Your task to perform on an android device: stop showing notifications on the lock screen Image 0: 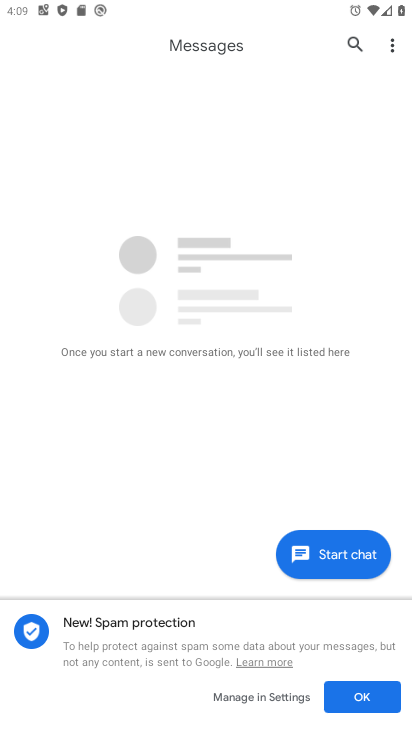
Step 0: press home button
Your task to perform on an android device: stop showing notifications on the lock screen Image 1: 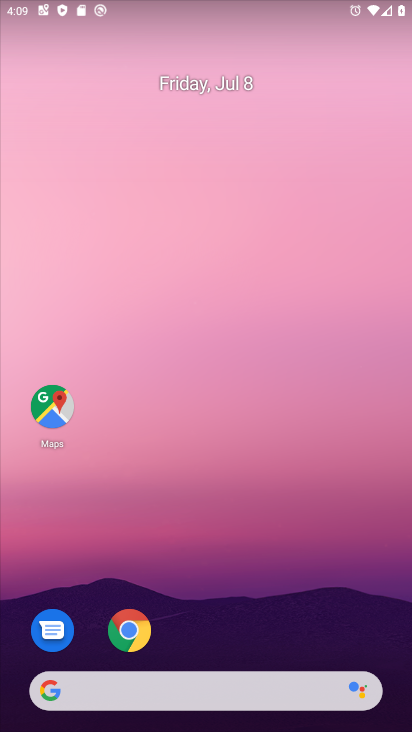
Step 1: drag from (223, 662) to (177, 53)
Your task to perform on an android device: stop showing notifications on the lock screen Image 2: 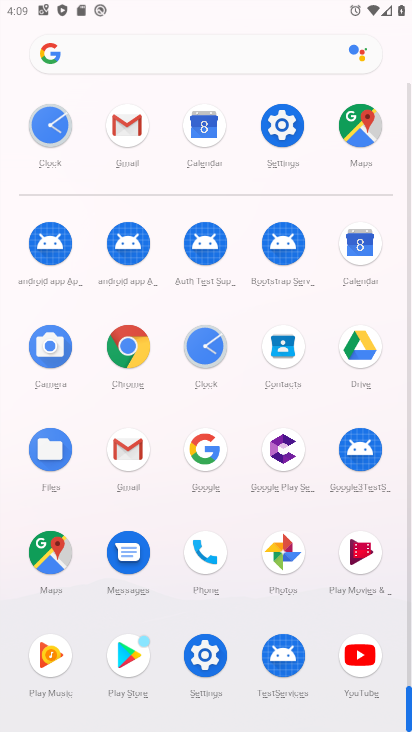
Step 2: click (278, 127)
Your task to perform on an android device: stop showing notifications on the lock screen Image 3: 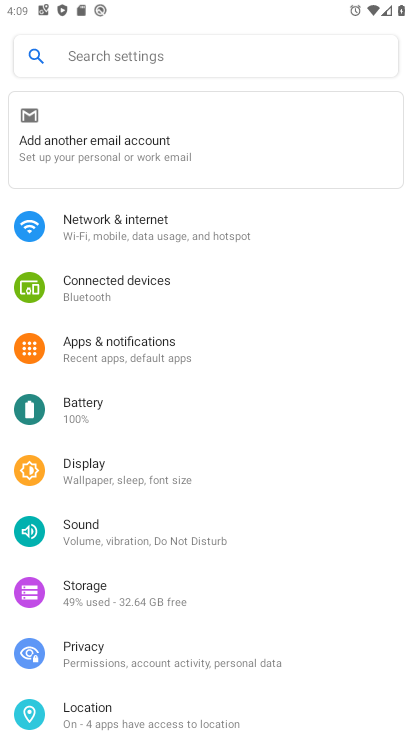
Step 3: click (135, 337)
Your task to perform on an android device: stop showing notifications on the lock screen Image 4: 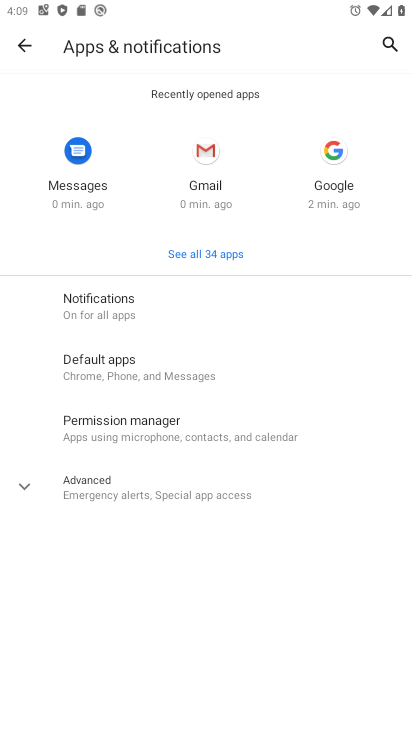
Step 4: click (104, 312)
Your task to perform on an android device: stop showing notifications on the lock screen Image 5: 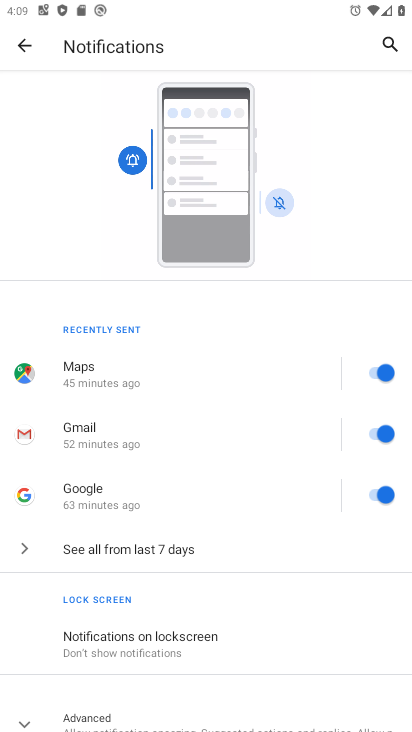
Step 5: click (113, 632)
Your task to perform on an android device: stop showing notifications on the lock screen Image 6: 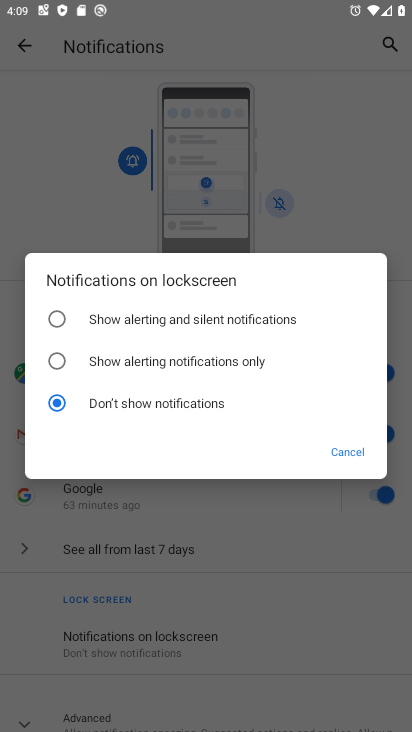
Step 6: click (55, 404)
Your task to perform on an android device: stop showing notifications on the lock screen Image 7: 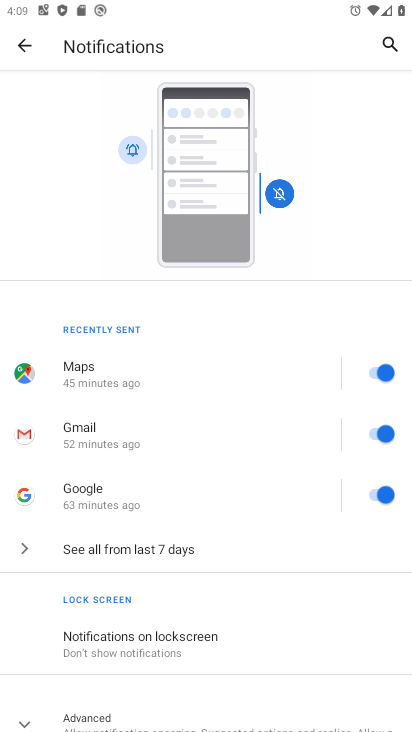
Step 7: task complete